Your task to perform on an android device: Open Wikipedia Image 0: 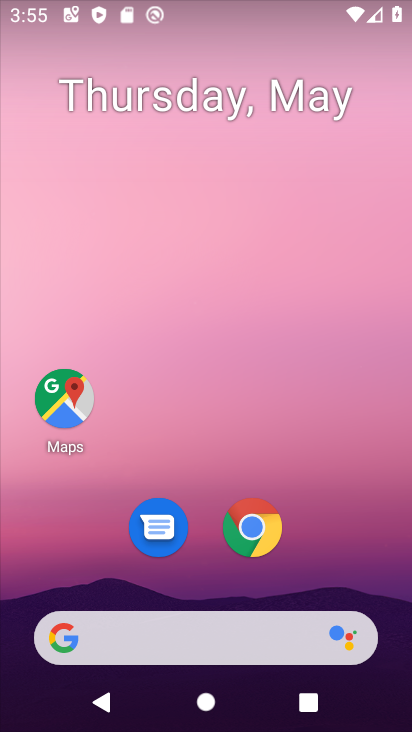
Step 0: click (253, 528)
Your task to perform on an android device: Open Wikipedia Image 1: 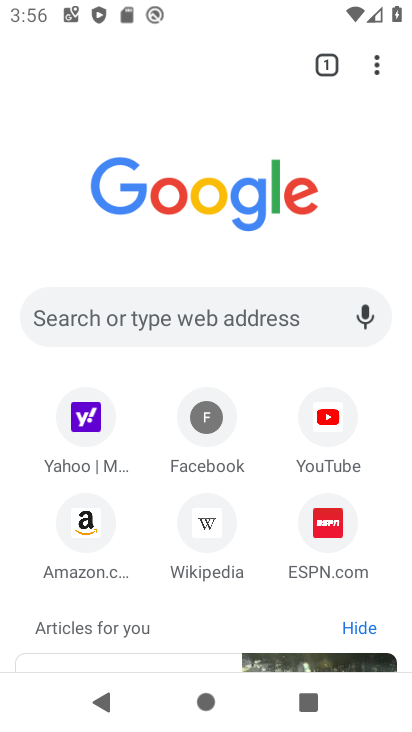
Step 1: task complete